Your task to perform on an android device: toggle show notifications on the lock screen Image 0: 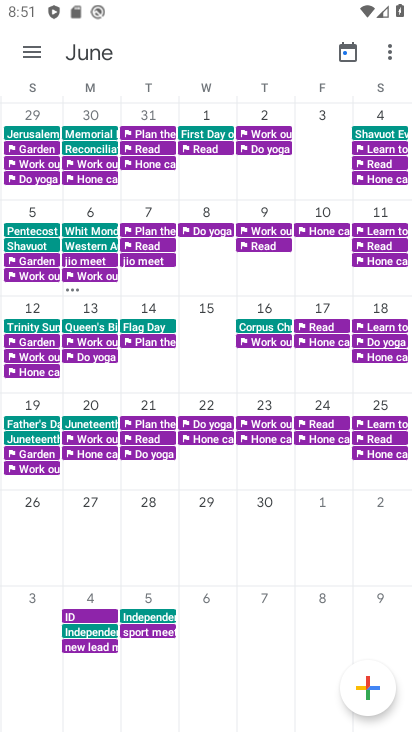
Step 0: press home button
Your task to perform on an android device: toggle show notifications on the lock screen Image 1: 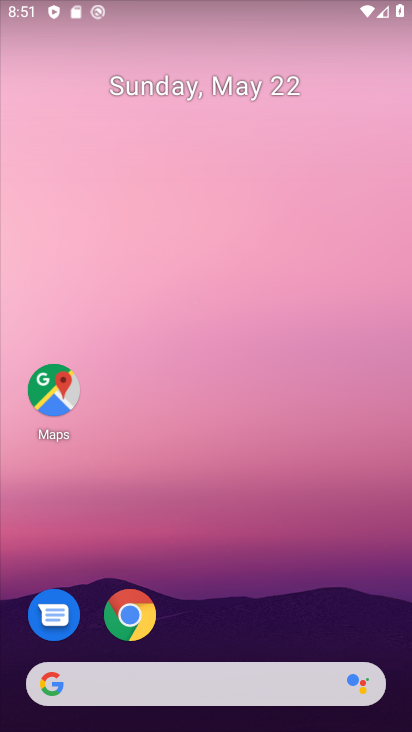
Step 1: drag from (250, 588) to (261, 225)
Your task to perform on an android device: toggle show notifications on the lock screen Image 2: 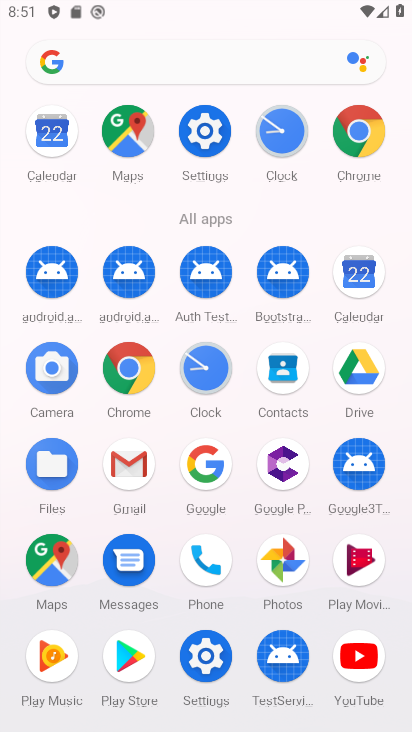
Step 2: click (193, 125)
Your task to perform on an android device: toggle show notifications on the lock screen Image 3: 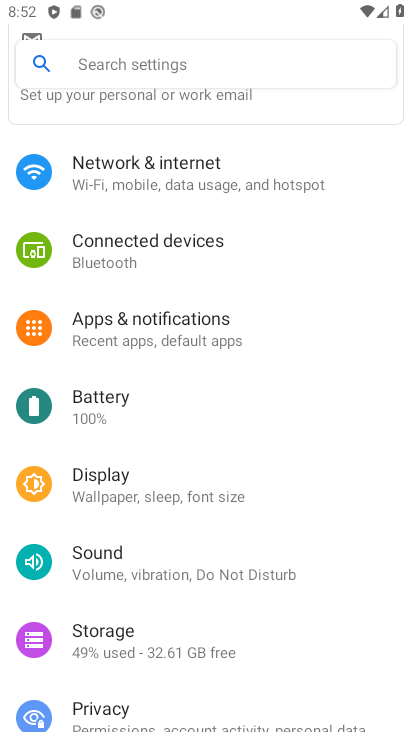
Step 3: click (127, 159)
Your task to perform on an android device: toggle show notifications on the lock screen Image 4: 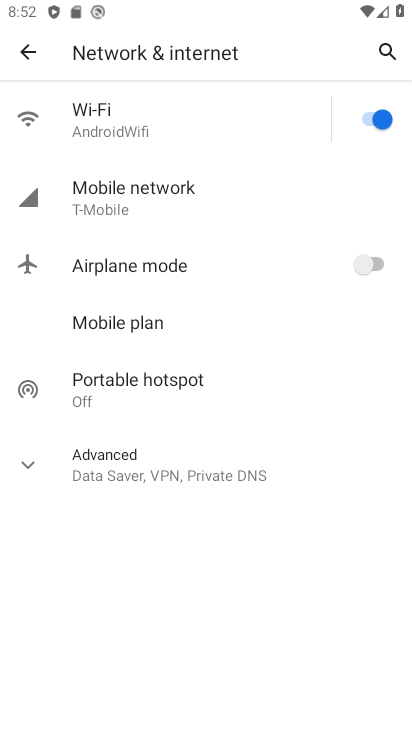
Step 4: click (35, 57)
Your task to perform on an android device: toggle show notifications on the lock screen Image 5: 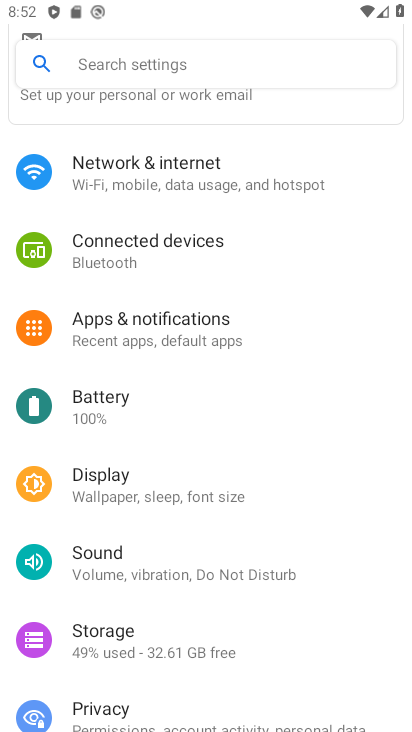
Step 5: click (173, 327)
Your task to perform on an android device: toggle show notifications on the lock screen Image 6: 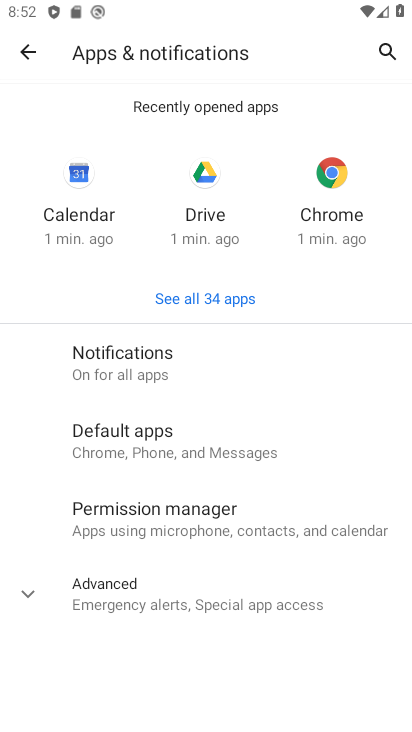
Step 6: click (196, 368)
Your task to perform on an android device: toggle show notifications on the lock screen Image 7: 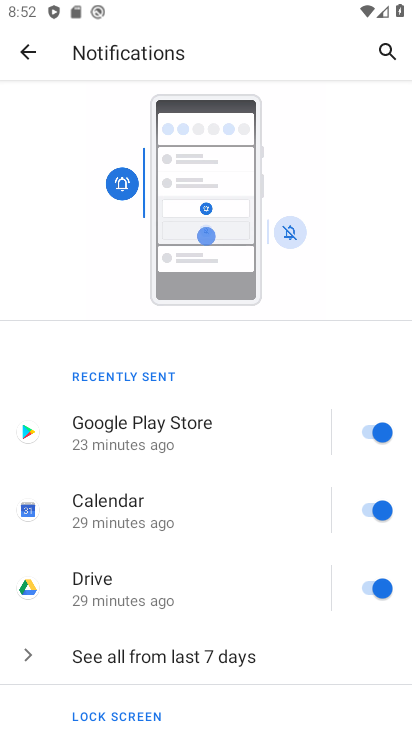
Step 7: drag from (165, 502) to (303, 81)
Your task to perform on an android device: toggle show notifications on the lock screen Image 8: 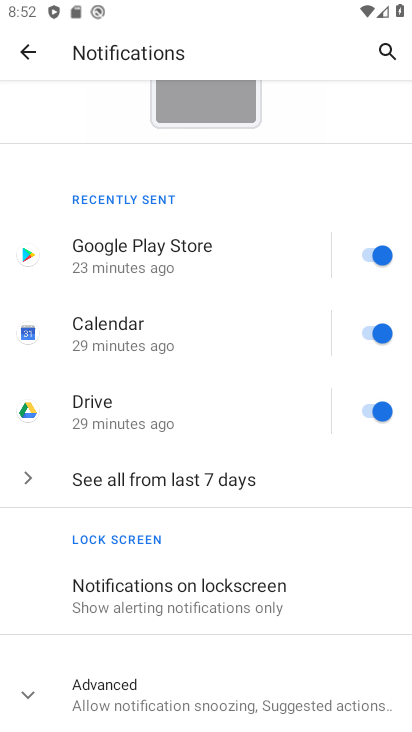
Step 8: click (189, 592)
Your task to perform on an android device: toggle show notifications on the lock screen Image 9: 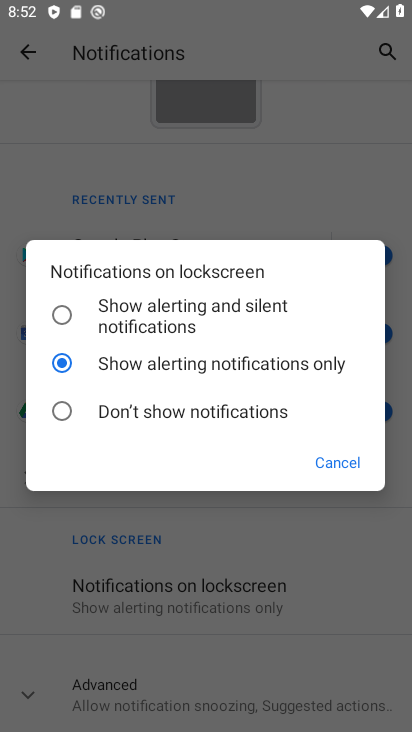
Step 9: click (123, 322)
Your task to perform on an android device: toggle show notifications on the lock screen Image 10: 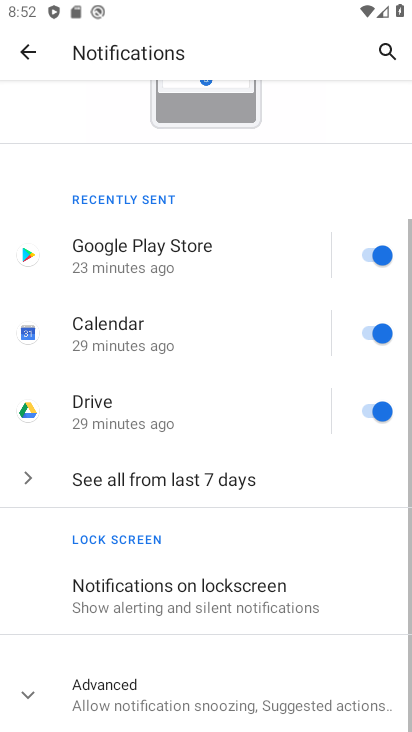
Step 10: task complete